Your task to perform on an android device: change text size in settings app Image 0: 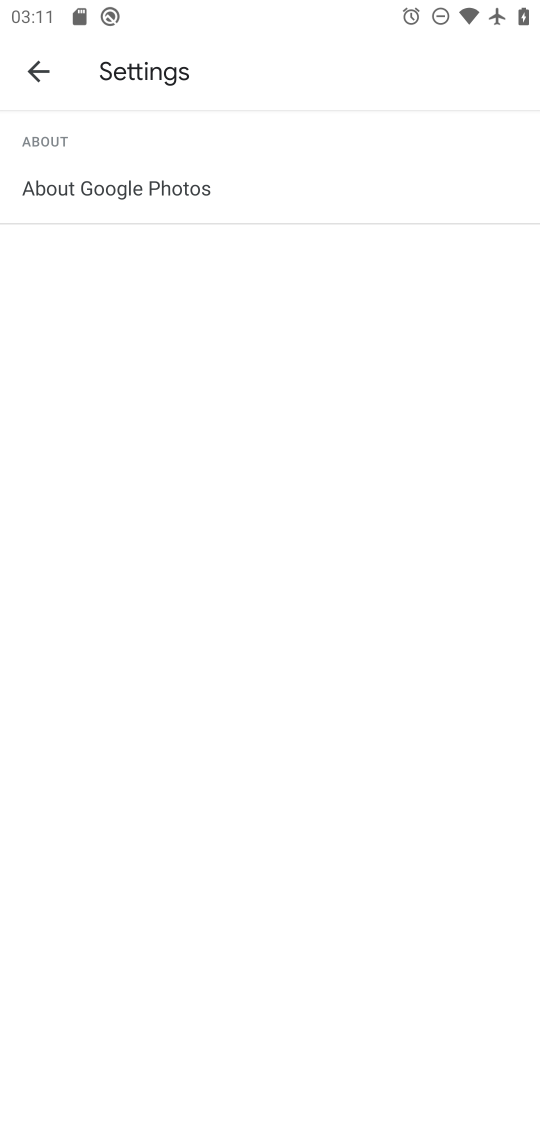
Step 0: press back button
Your task to perform on an android device: change text size in settings app Image 1: 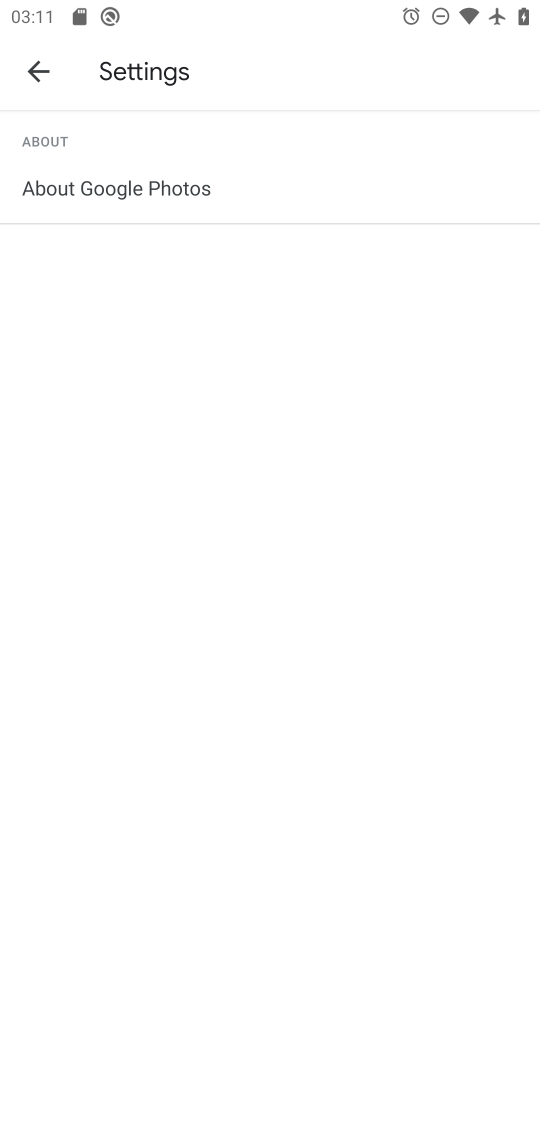
Step 1: press home button
Your task to perform on an android device: change text size in settings app Image 2: 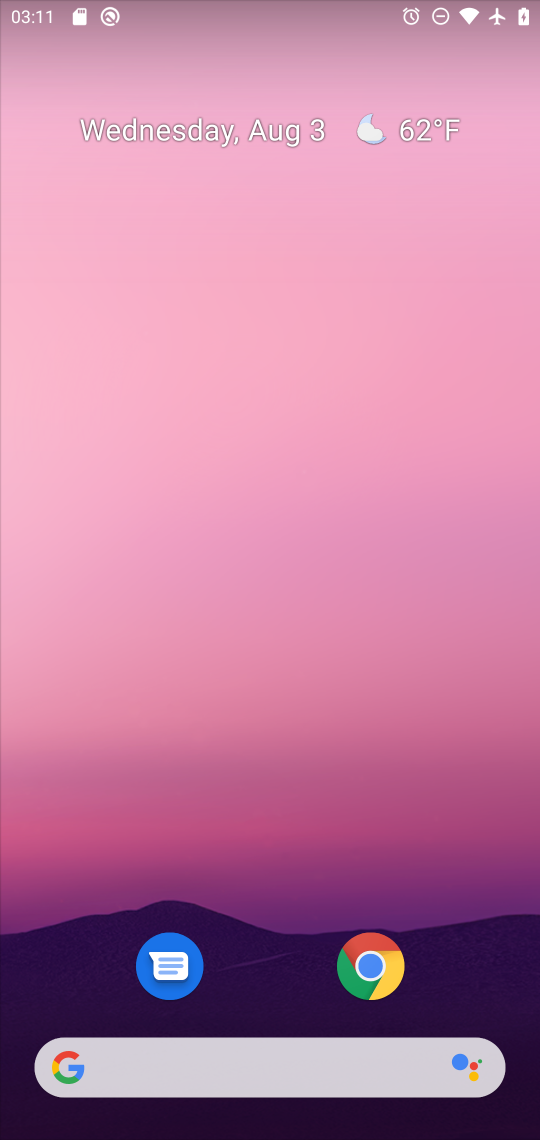
Step 2: drag from (268, 979) to (315, 347)
Your task to perform on an android device: change text size in settings app Image 3: 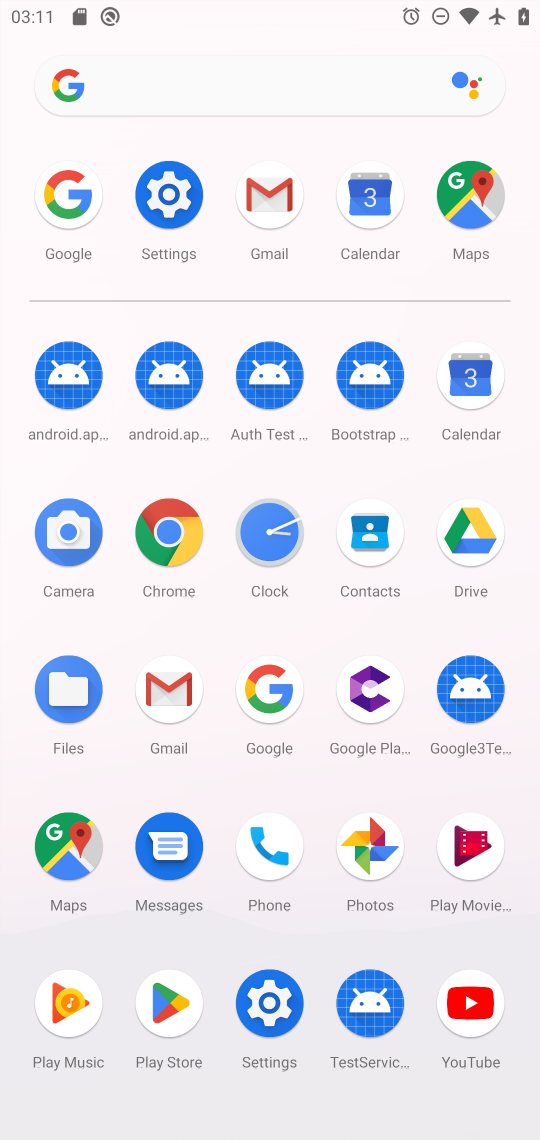
Step 3: click (167, 205)
Your task to perform on an android device: change text size in settings app Image 4: 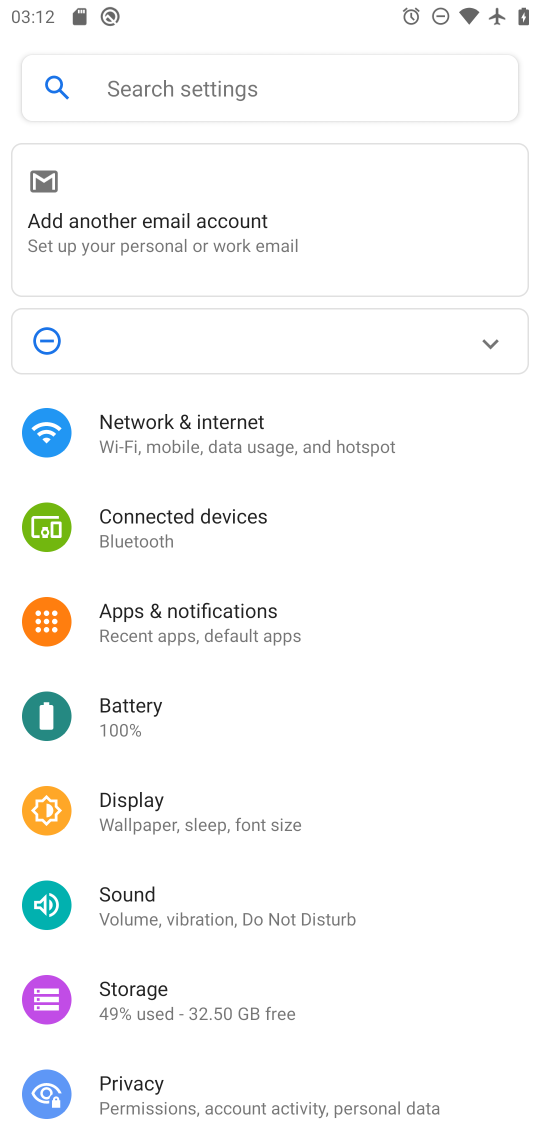
Step 4: click (196, 804)
Your task to perform on an android device: change text size in settings app Image 5: 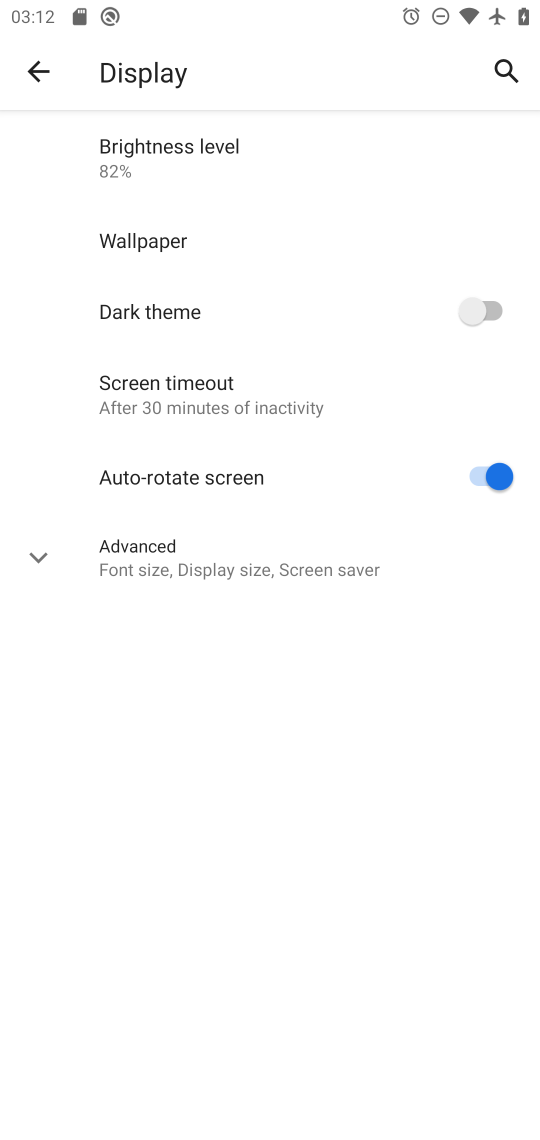
Step 5: click (187, 583)
Your task to perform on an android device: change text size in settings app Image 6: 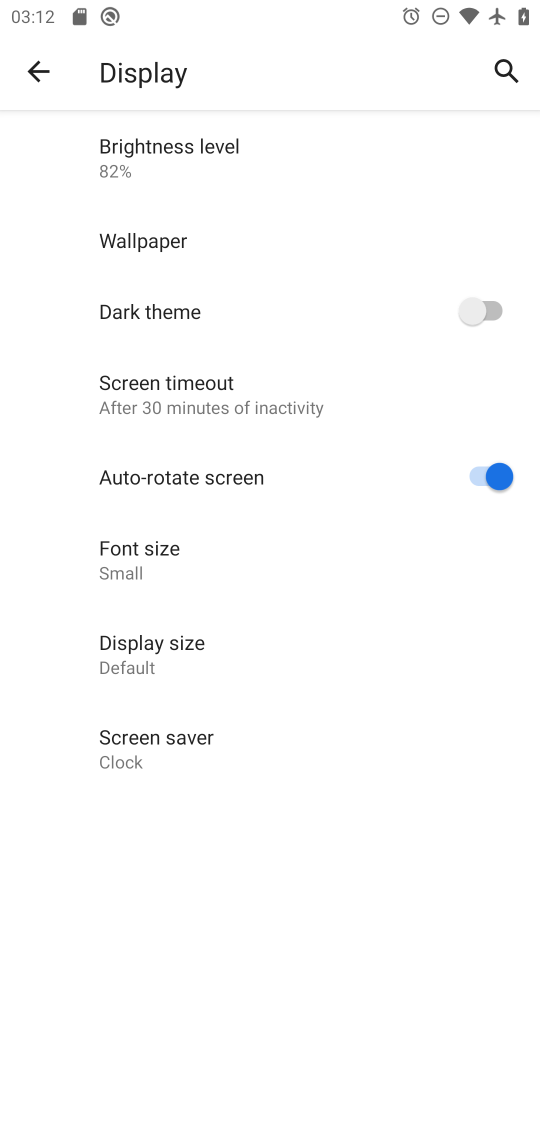
Step 6: click (170, 563)
Your task to perform on an android device: change text size in settings app Image 7: 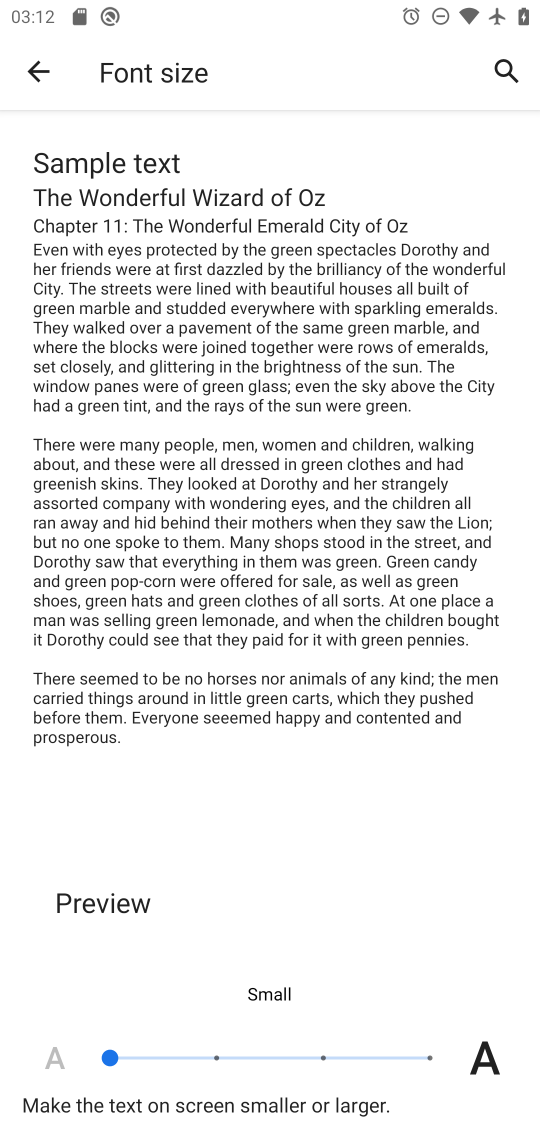
Step 7: click (414, 1064)
Your task to perform on an android device: change text size in settings app Image 8: 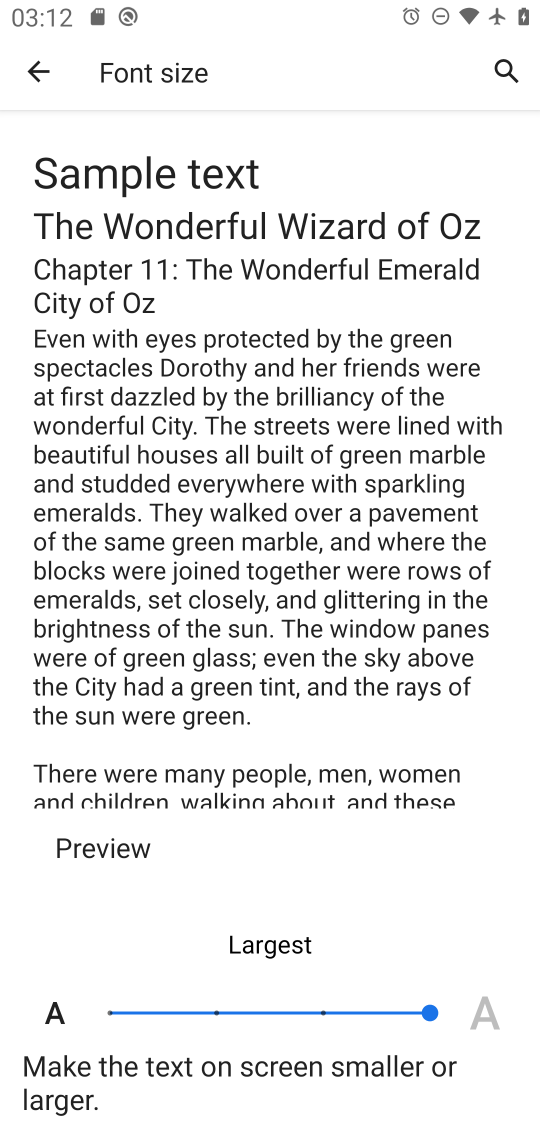
Step 8: task complete